Your task to perform on an android device: add a label to a message in the gmail app Image 0: 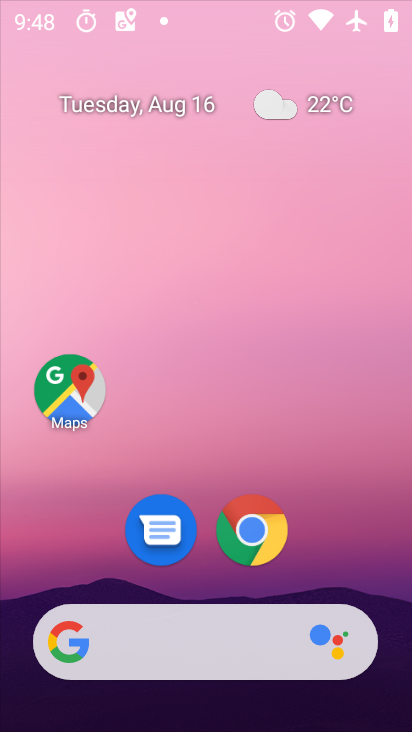
Step 0: click (289, 251)
Your task to perform on an android device: add a label to a message in the gmail app Image 1: 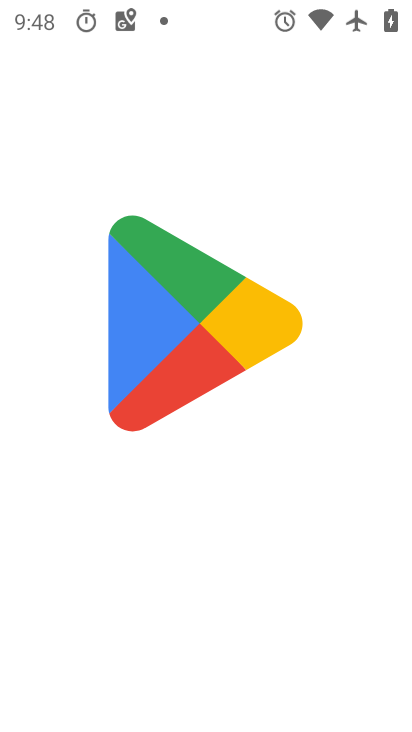
Step 1: drag from (361, 541) to (332, 165)
Your task to perform on an android device: add a label to a message in the gmail app Image 2: 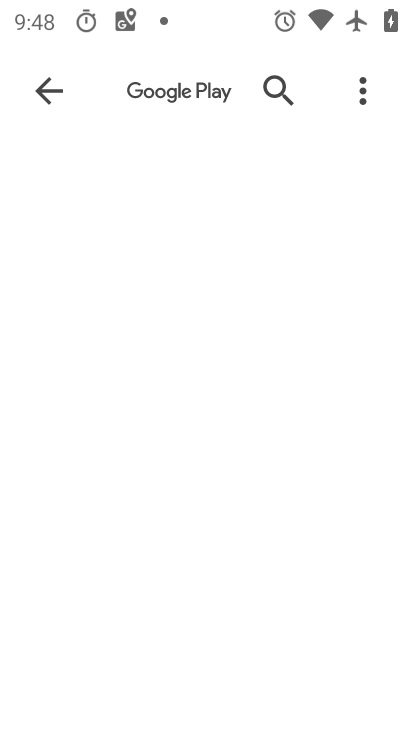
Step 2: press home button
Your task to perform on an android device: add a label to a message in the gmail app Image 3: 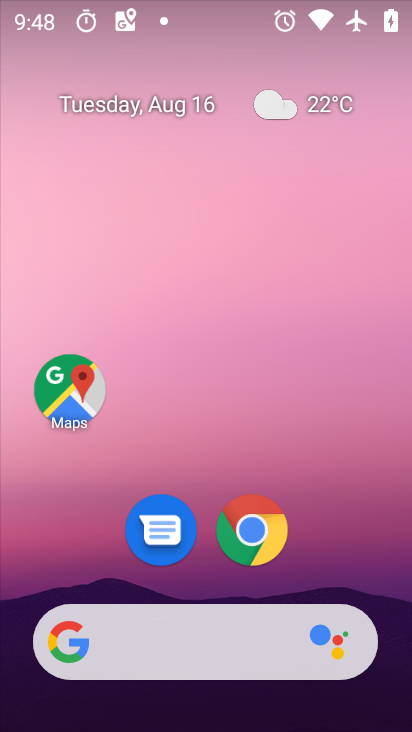
Step 3: drag from (345, 572) to (236, 21)
Your task to perform on an android device: add a label to a message in the gmail app Image 4: 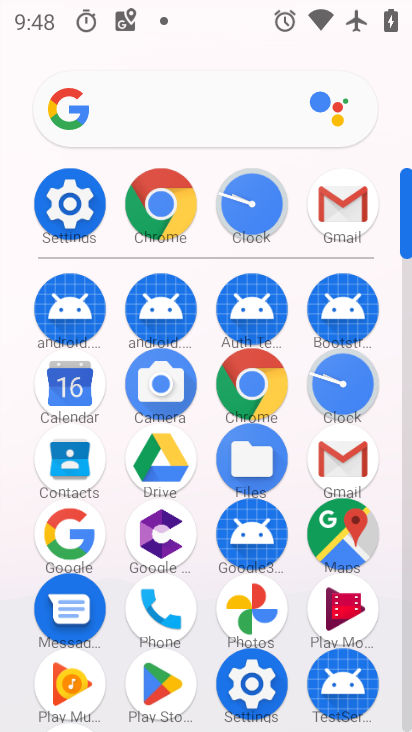
Step 4: click (345, 470)
Your task to perform on an android device: add a label to a message in the gmail app Image 5: 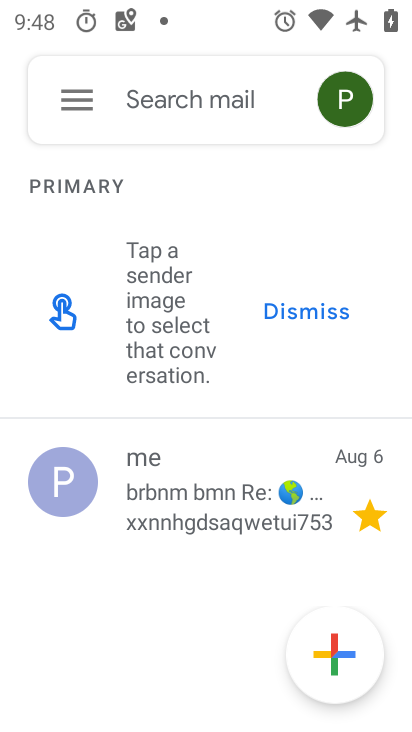
Step 5: click (85, 103)
Your task to perform on an android device: add a label to a message in the gmail app Image 6: 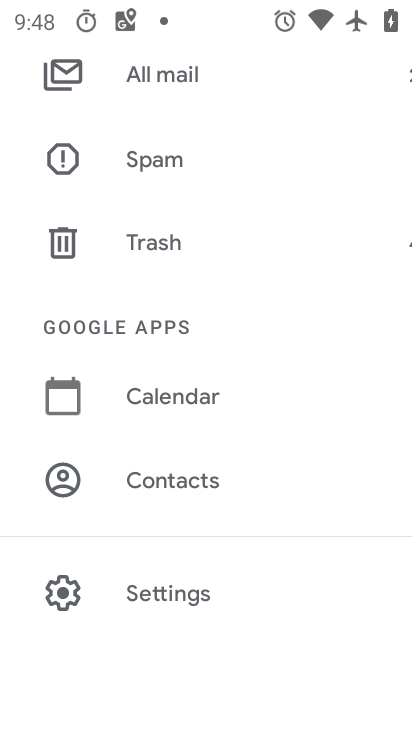
Step 6: drag from (159, 148) to (176, 730)
Your task to perform on an android device: add a label to a message in the gmail app Image 7: 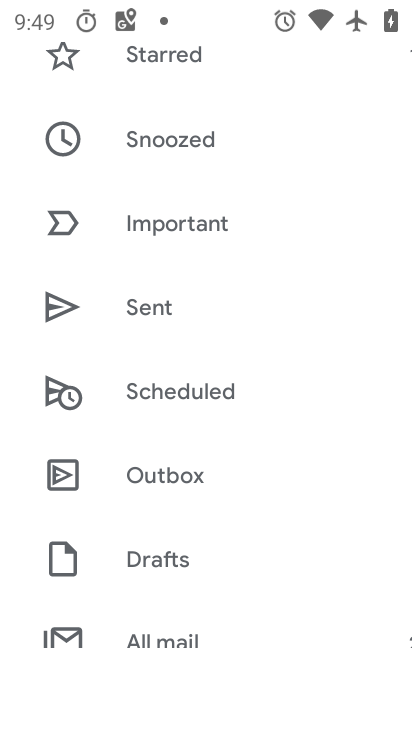
Step 7: drag from (209, 192) to (163, 630)
Your task to perform on an android device: add a label to a message in the gmail app Image 8: 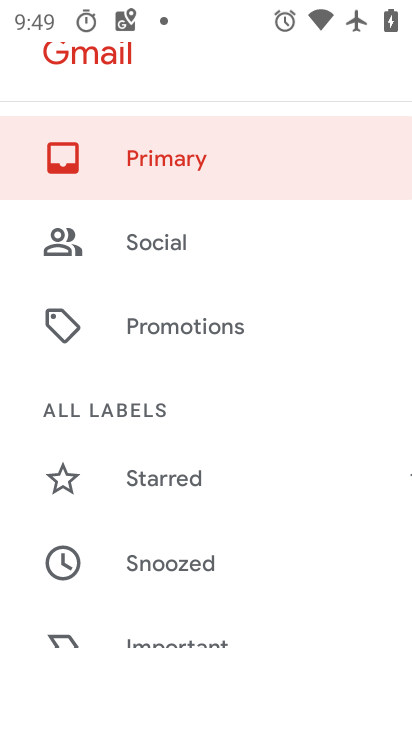
Step 8: drag from (151, 616) to (212, 272)
Your task to perform on an android device: add a label to a message in the gmail app Image 9: 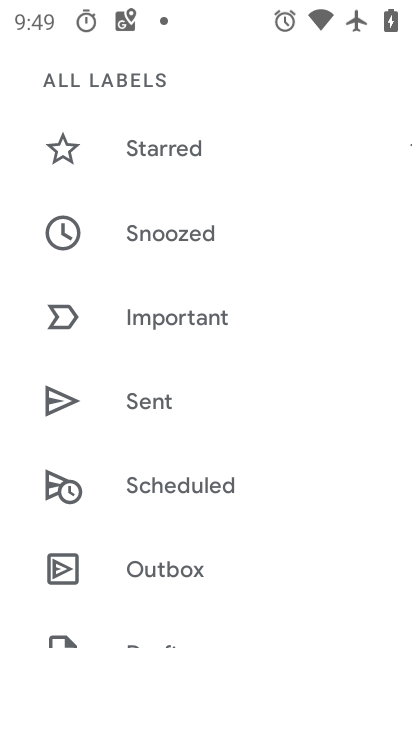
Step 9: drag from (160, 553) to (190, 312)
Your task to perform on an android device: add a label to a message in the gmail app Image 10: 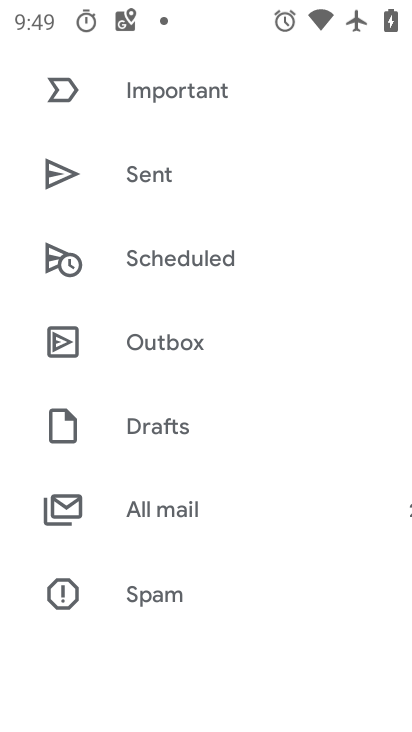
Step 10: click (133, 496)
Your task to perform on an android device: add a label to a message in the gmail app Image 11: 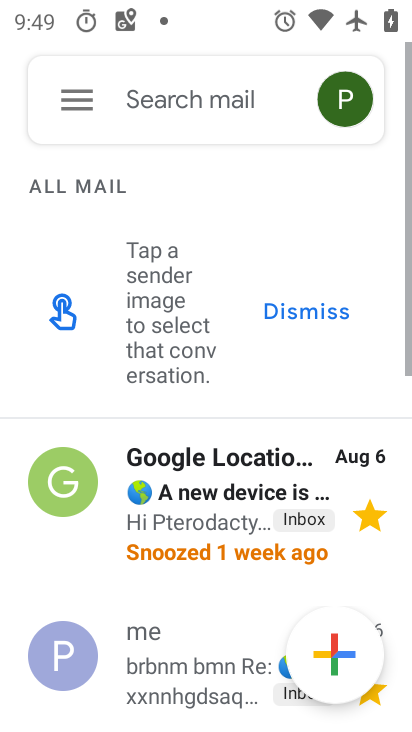
Step 11: drag from (216, 622) to (234, 295)
Your task to perform on an android device: add a label to a message in the gmail app Image 12: 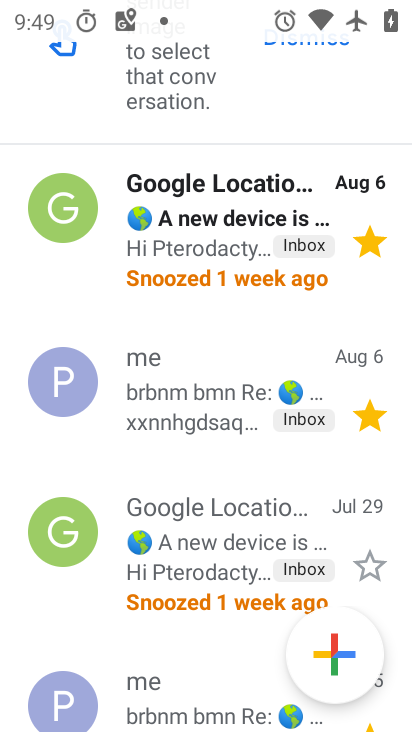
Step 12: click (223, 406)
Your task to perform on an android device: add a label to a message in the gmail app Image 13: 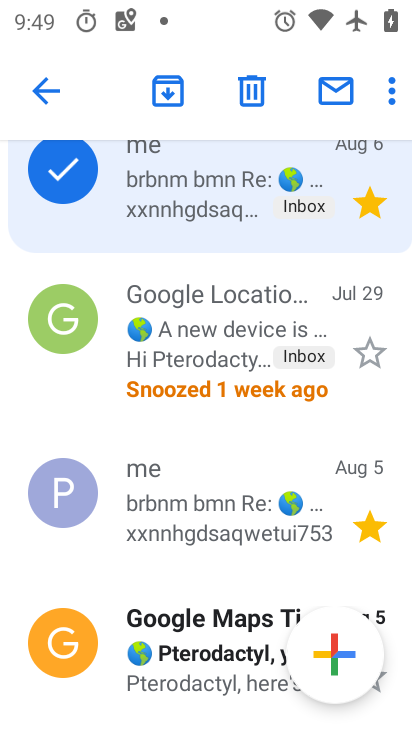
Step 13: click (396, 83)
Your task to perform on an android device: add a label to a message in the gmail app Image 14: 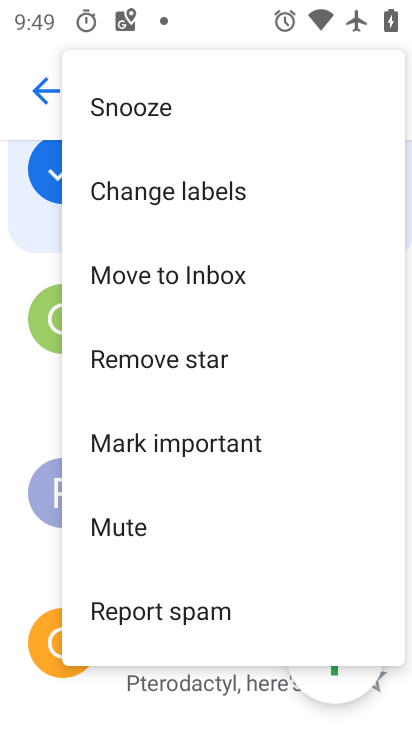
Step 14: task complete